Your task to perform on an android device: Open wifi settings Image 0: 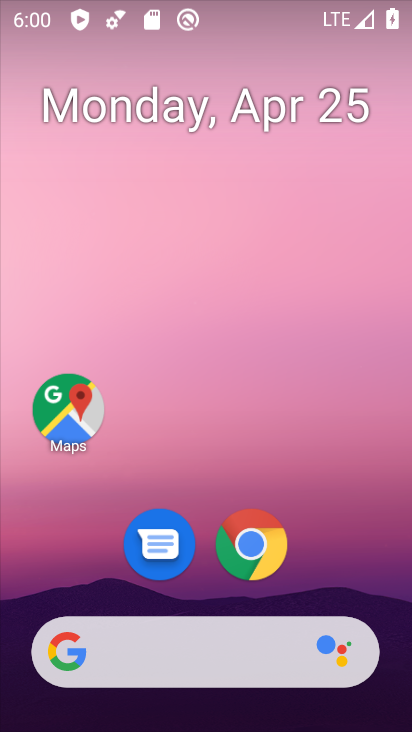
Step 0: drag from (321, 564) to (333, 0)
Your task to perform on an android device: Open wifi settings Image 1: 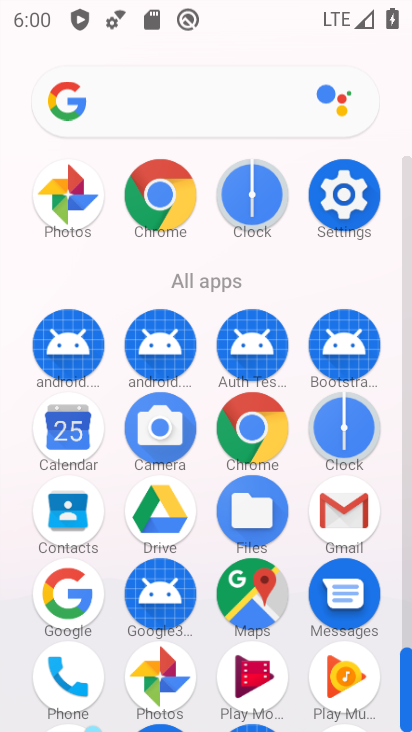
Step 1: drag from (333, 8) to (287, 720)
Your task to perform on an android device: Open wifi settings Image 2: 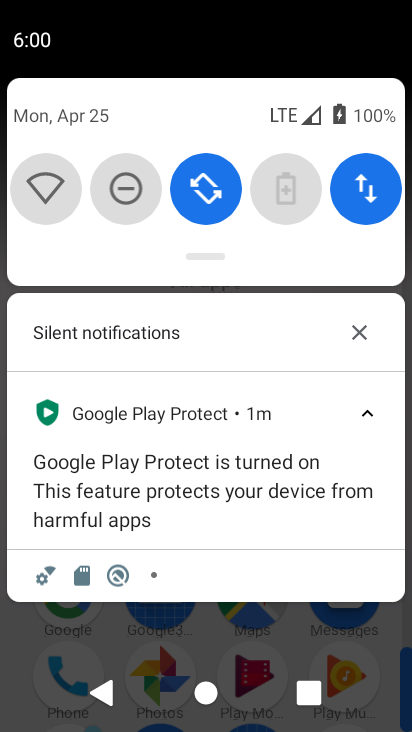
Step 2: click (50, 189)
Your task to perform on an android device: Open wifi settings Image 3: 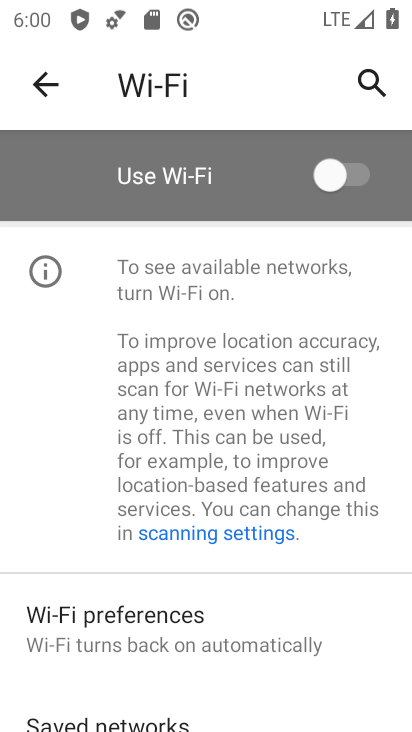
Step 3: task complete